Your task to perform on an android device: Search for corsair k70 on ebay.com, select the first entry, add it to the cart, then select checkout. Image 0: 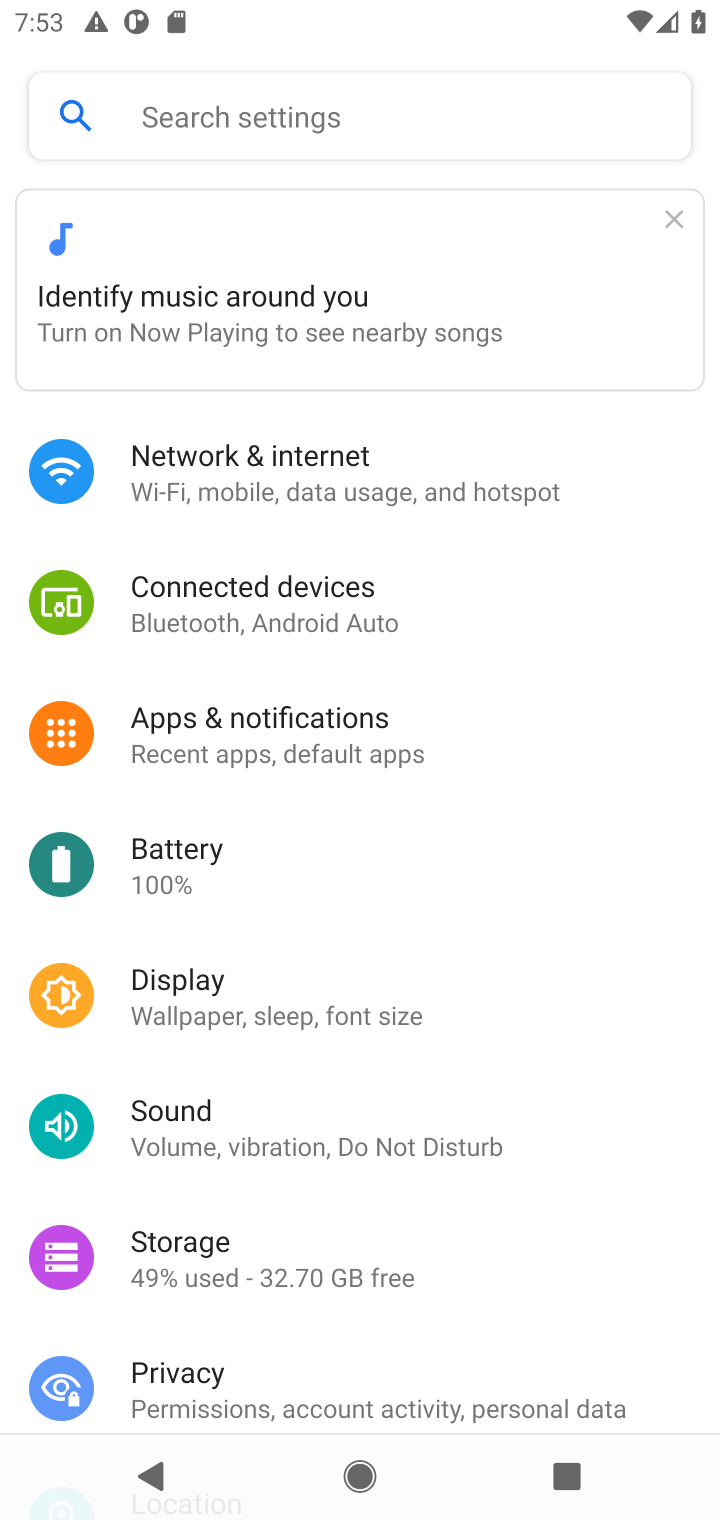
Step 0: press home button
Your task to perform on an android device: Search for corsair k70 on ebay.com, select the first entry, add it to the cart, then select checkout. Image 1: 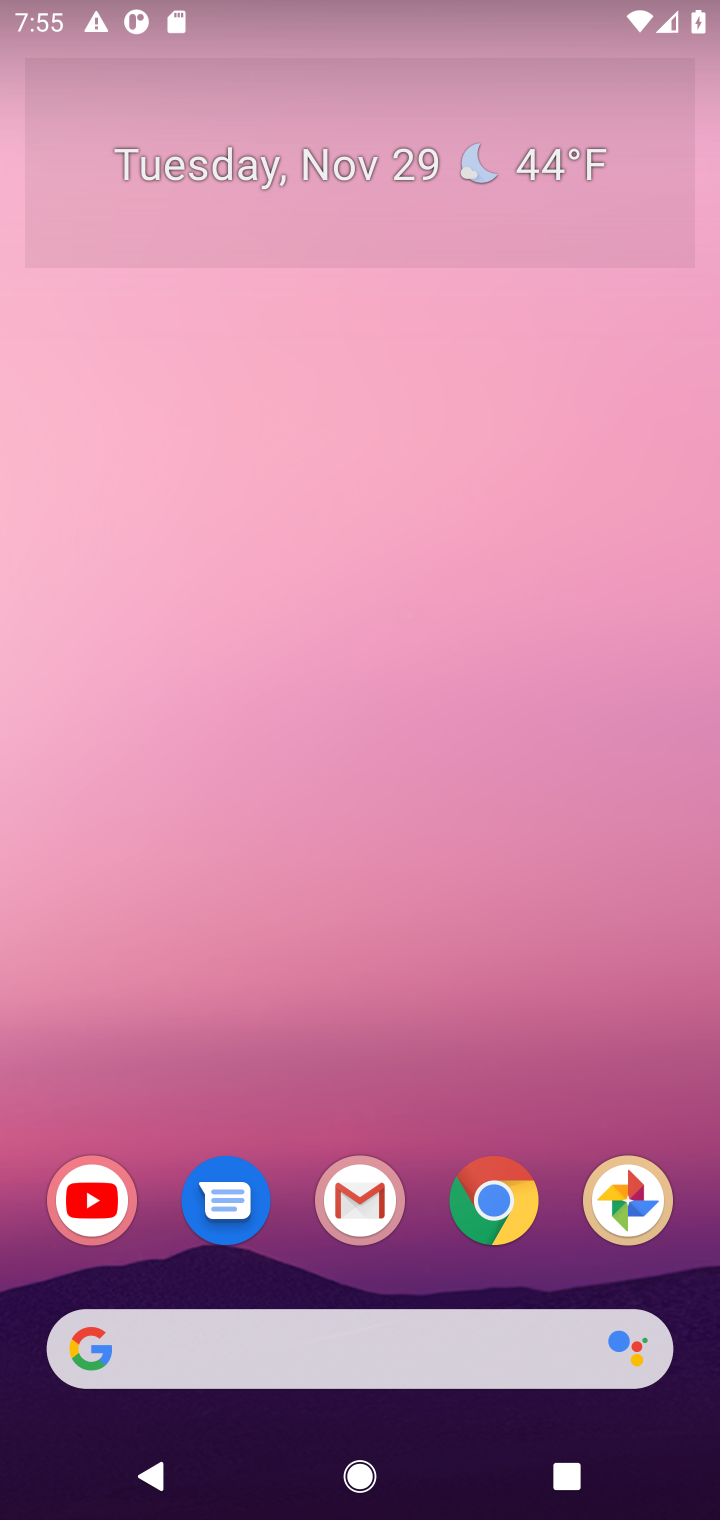
Step 1: click (489, 1215)
Your task to perform on an android device: Search for corsair k70 on ebay.com, select the first entry, add it to the cart, then select checkout. Image 2: 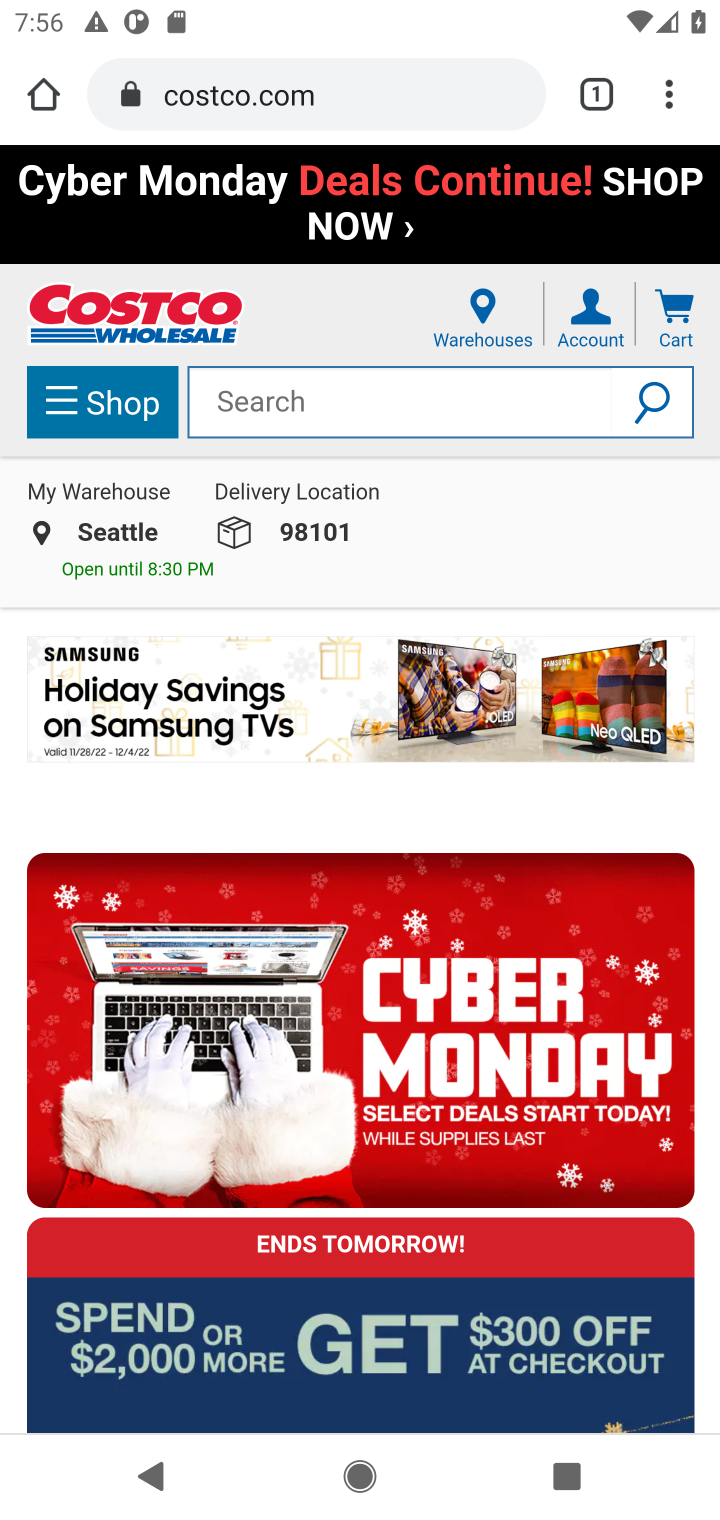
Step 2: click (458, 73)
Your task to perform on an android device: Search for corsair k70 on ebay.com, select the first entry, add it to the cart, then select checkout. Image 3: 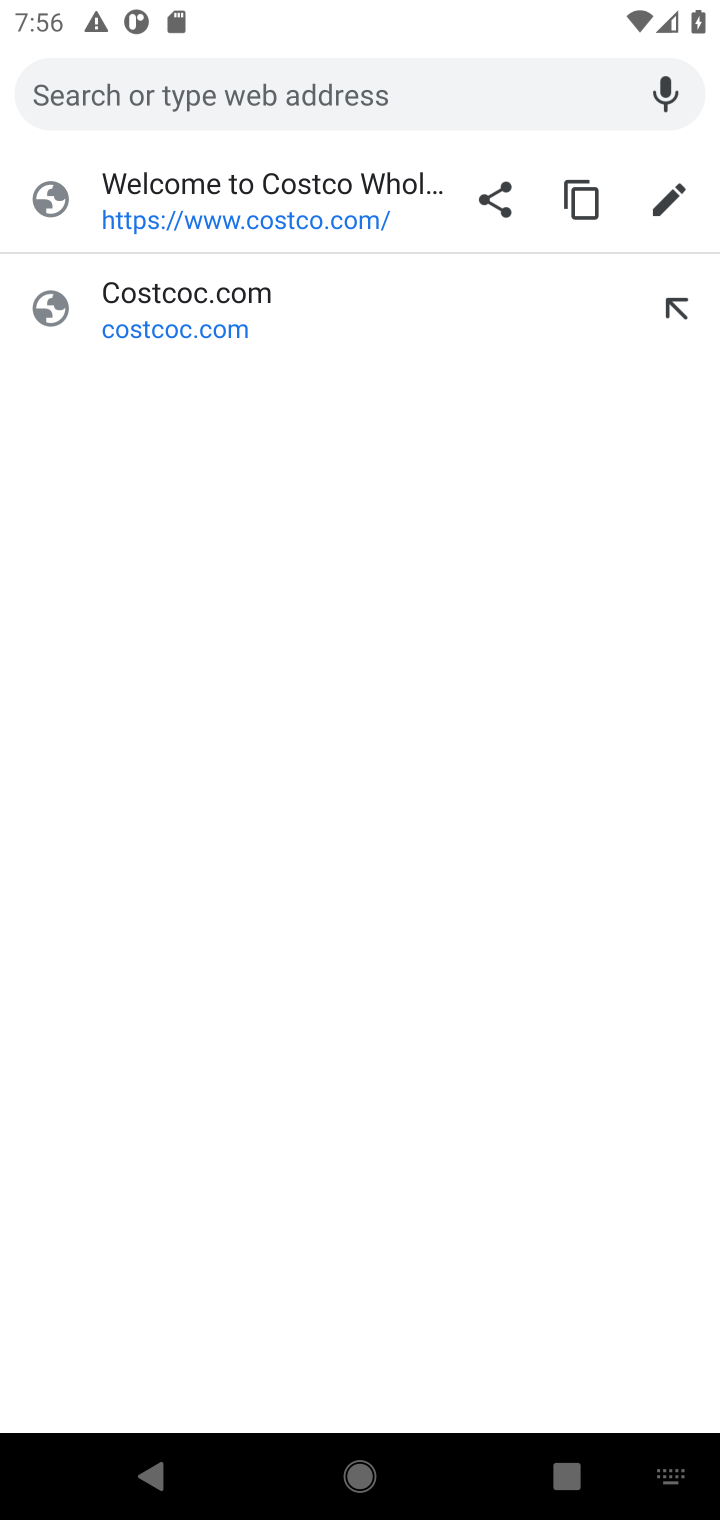
Step 3: type "e"
Your task to perform on an android device: Search for corsair k70 on ebay.com, select the first entry, add it to the cart, then select checkout. Image 4: 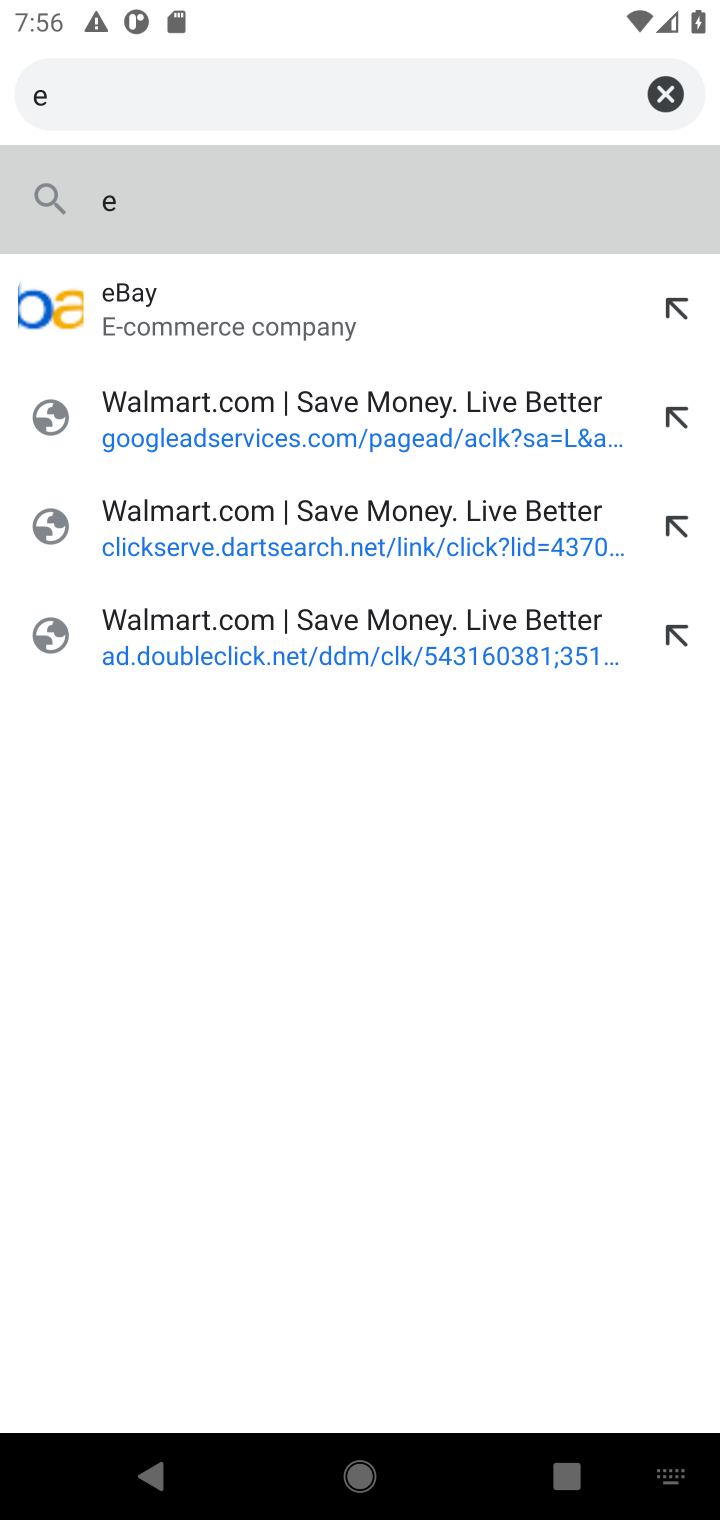
Step 4: click (167, 313)
Your task to perform on an android device: Search for corsair k70 on ebay.com, select the first entry, add it to the cart, then select checkout. Image 5: 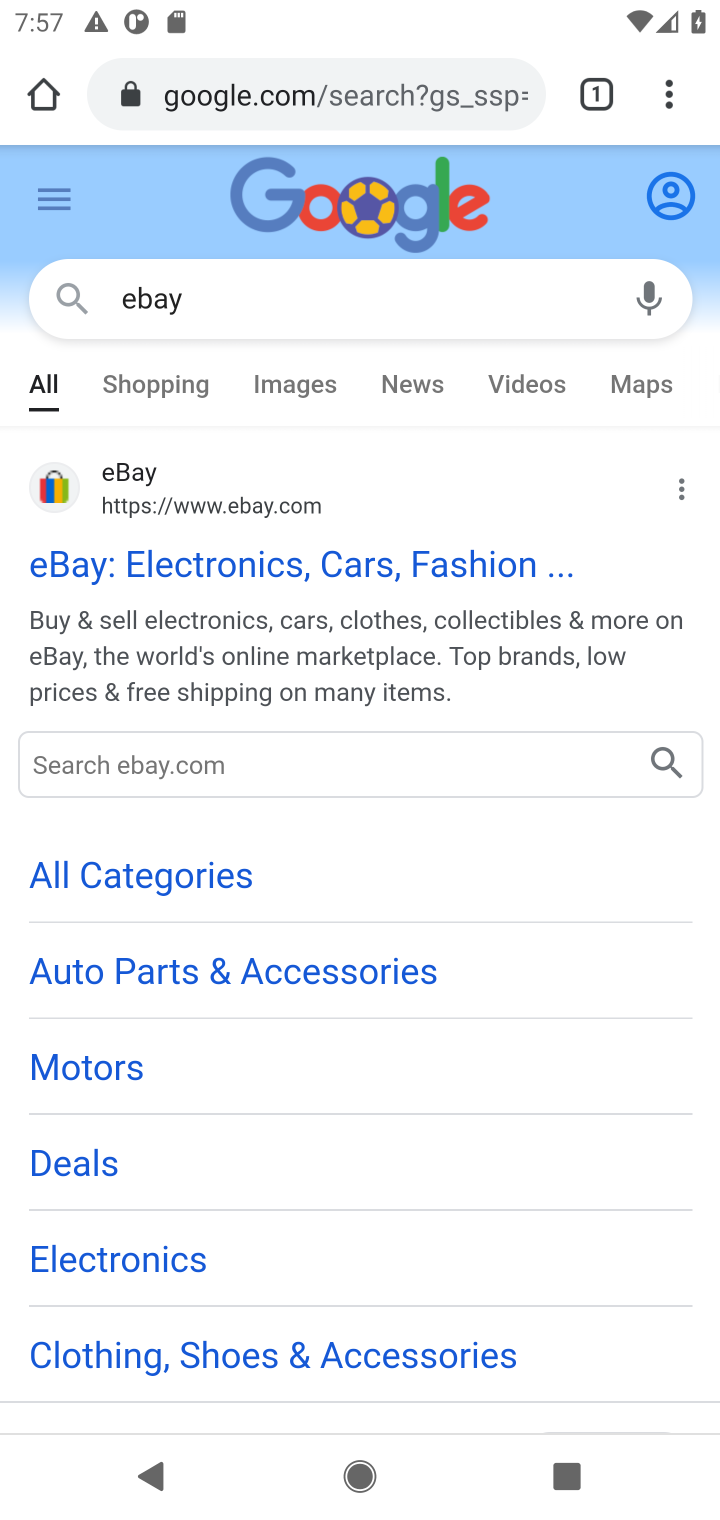
Step 5: click (408, 589)
Your task to perform on an android device: Search for corsair k70 on ebay.com, select the first entry, add it to the cart, then select checkout. Image 6: 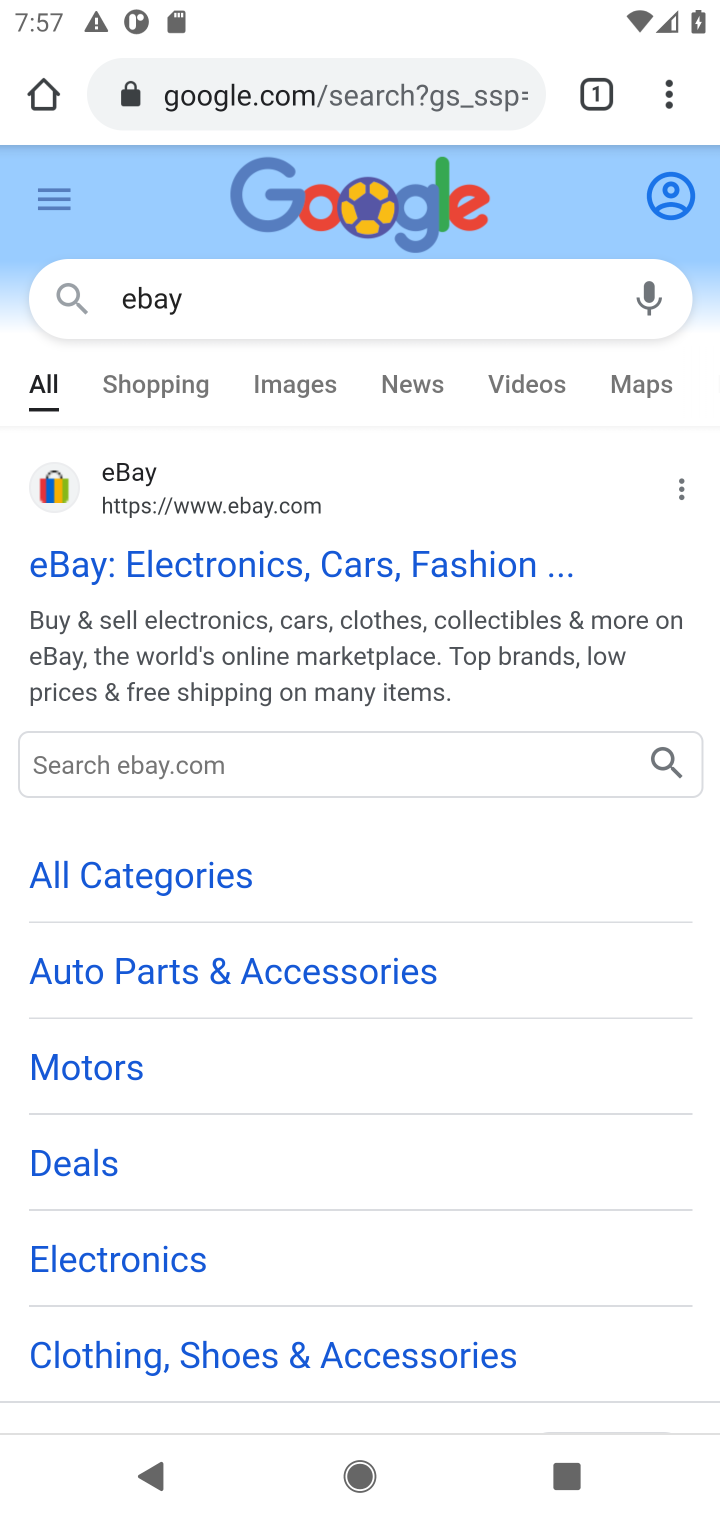
Step 6: click (389, 583)
Your task to perform on an android device: Search for corsair k70 on ebay.com, select the first entry, add it to the cart, then select checkout. Image 7: 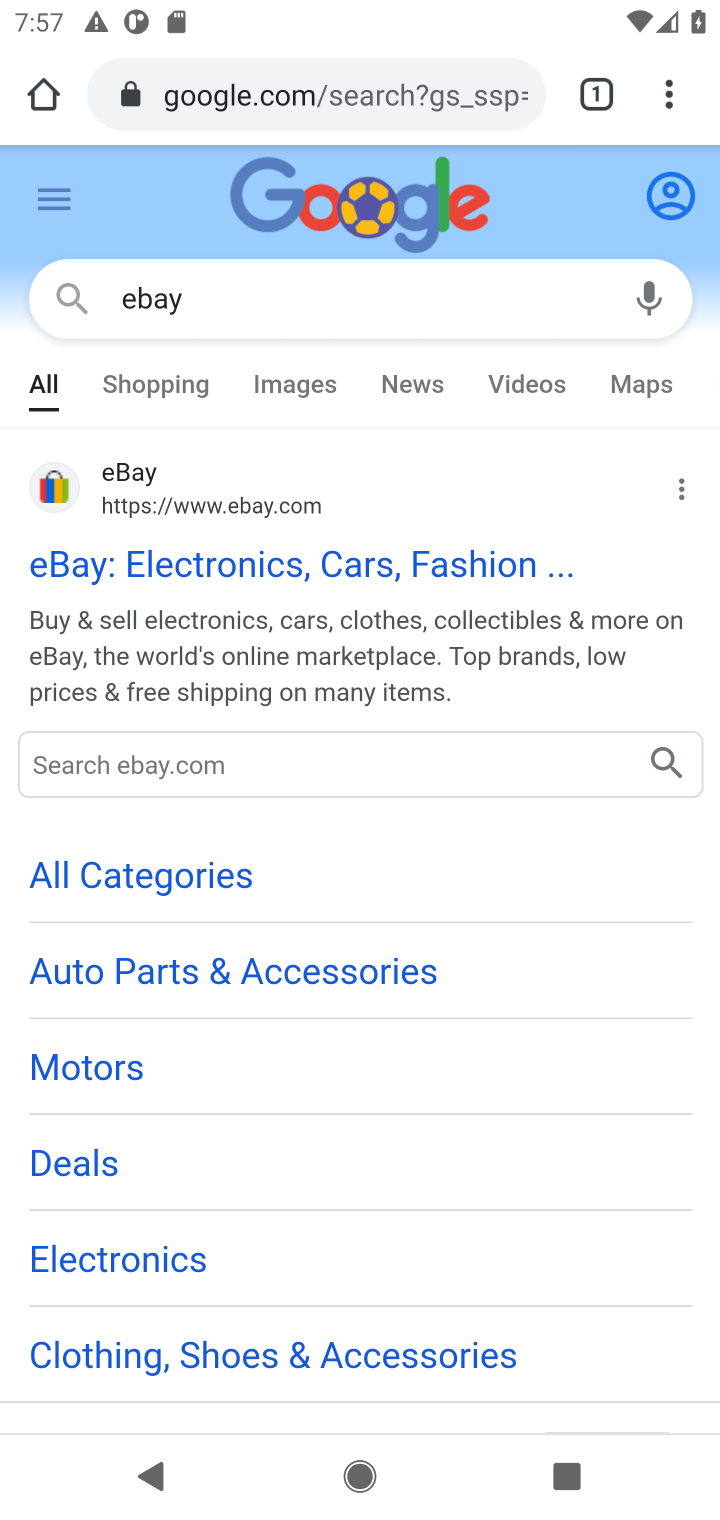
Step 7: click (274, 555)
Your task to perform on an android device: Search for corsair k70 on ebay.com, select the first entry, add it to the cart, then select checkout. Image 8: 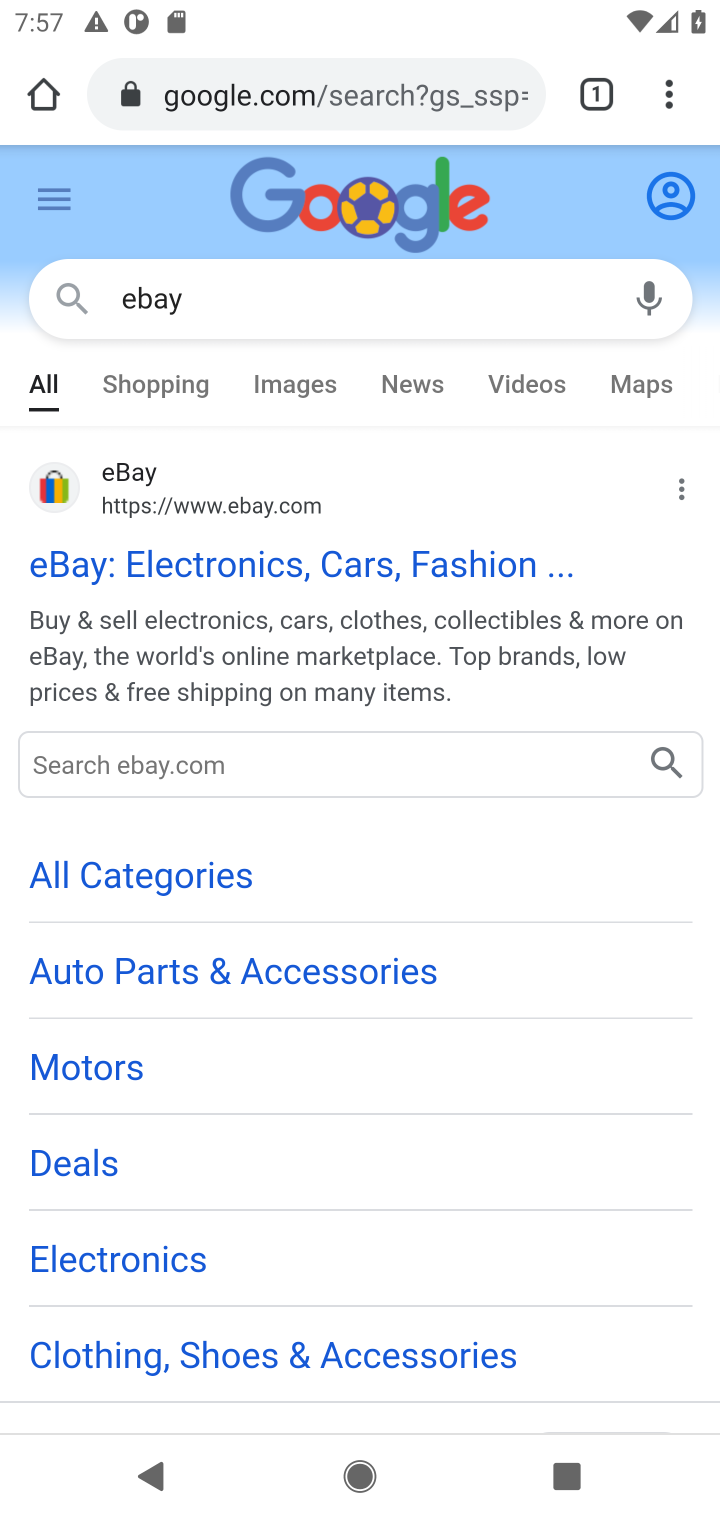
Step 8: click (208, 590)
Your task to perform on an android device: Search for corsair k70 on ebay.com, select the first entry, add it to the cart, then select checkout. Image 9: 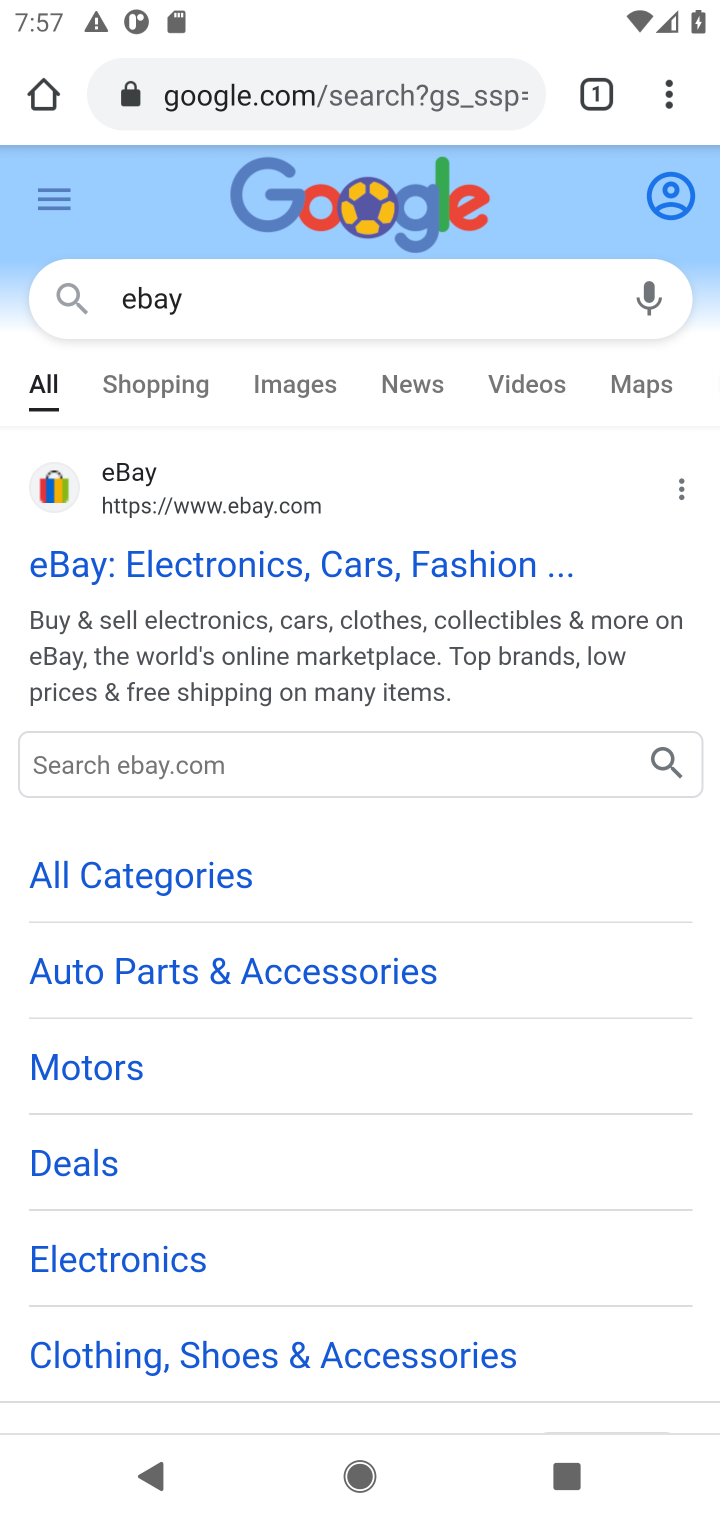
Step 9: click (63, 557)
Your task to perform on an android device: Search for corsair k70 on ebay.com, select the first entry, add it to the cart, then select checkout. Image 10: 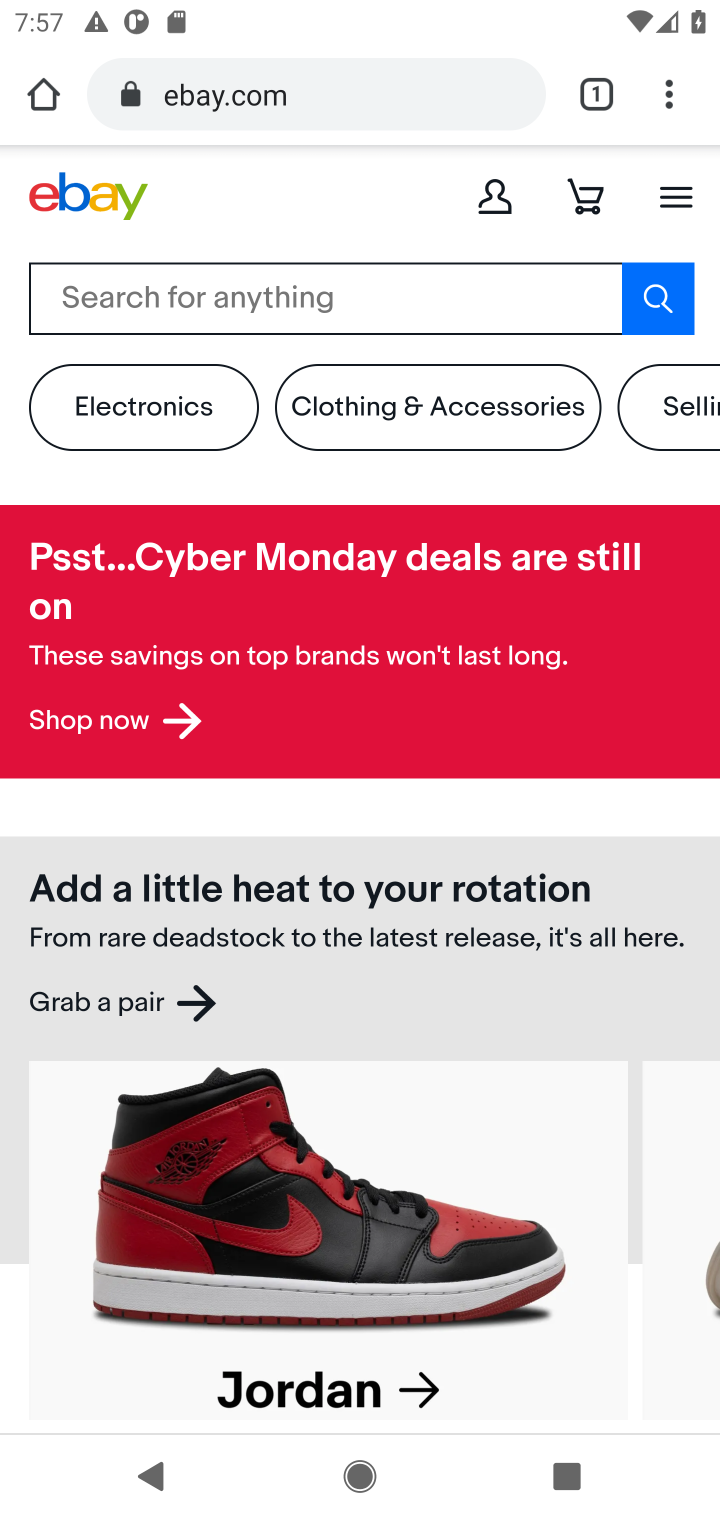
Step 10: click (243, 303)
Your task to perform on an android device: Search for corsair k70 on ebay.com, select the first entry, add it to the cart, then select checkout. Image 11: 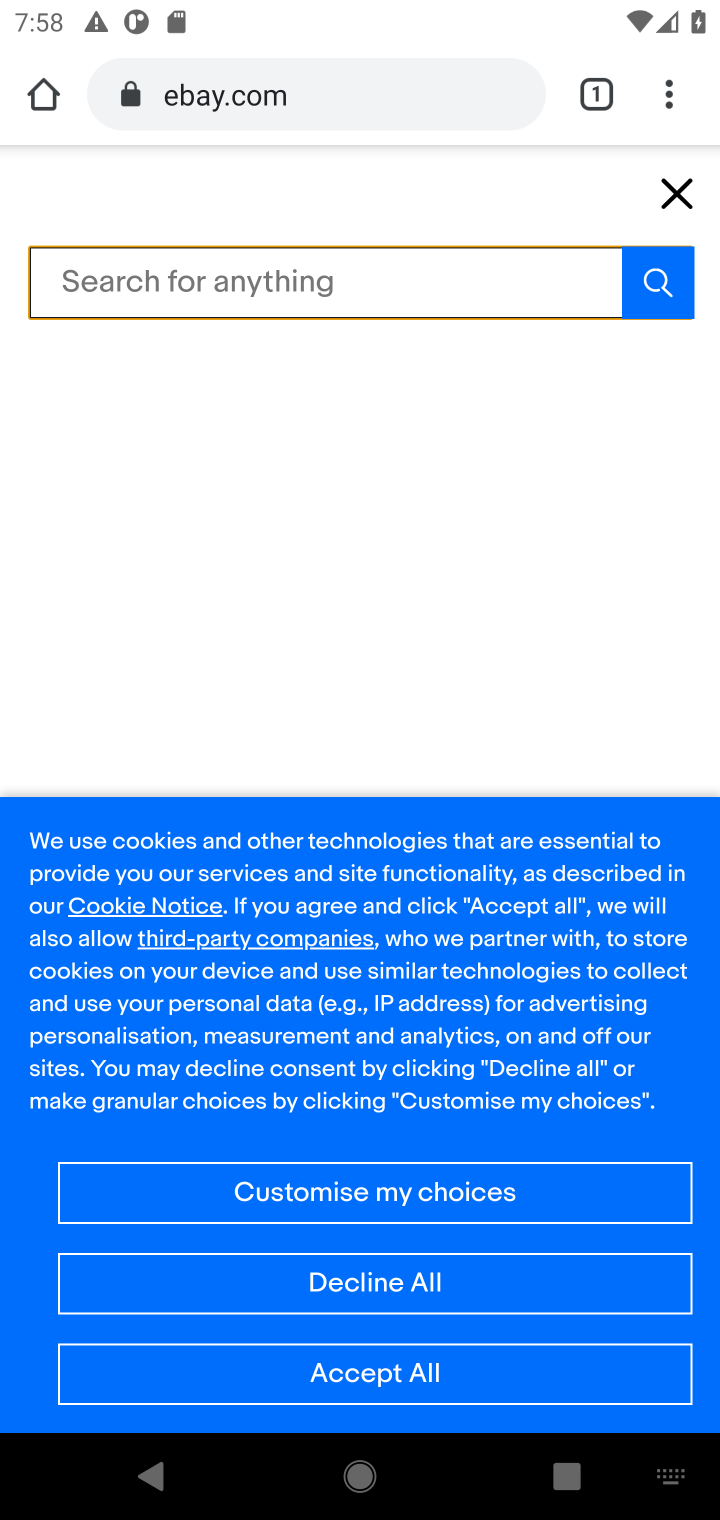
Step 11: type "cosrair k70"
Your task to perform on an android device: Search for corsair k70 on ebay.com, select the first entry, add it to the cart, then select checkout. Image 12: 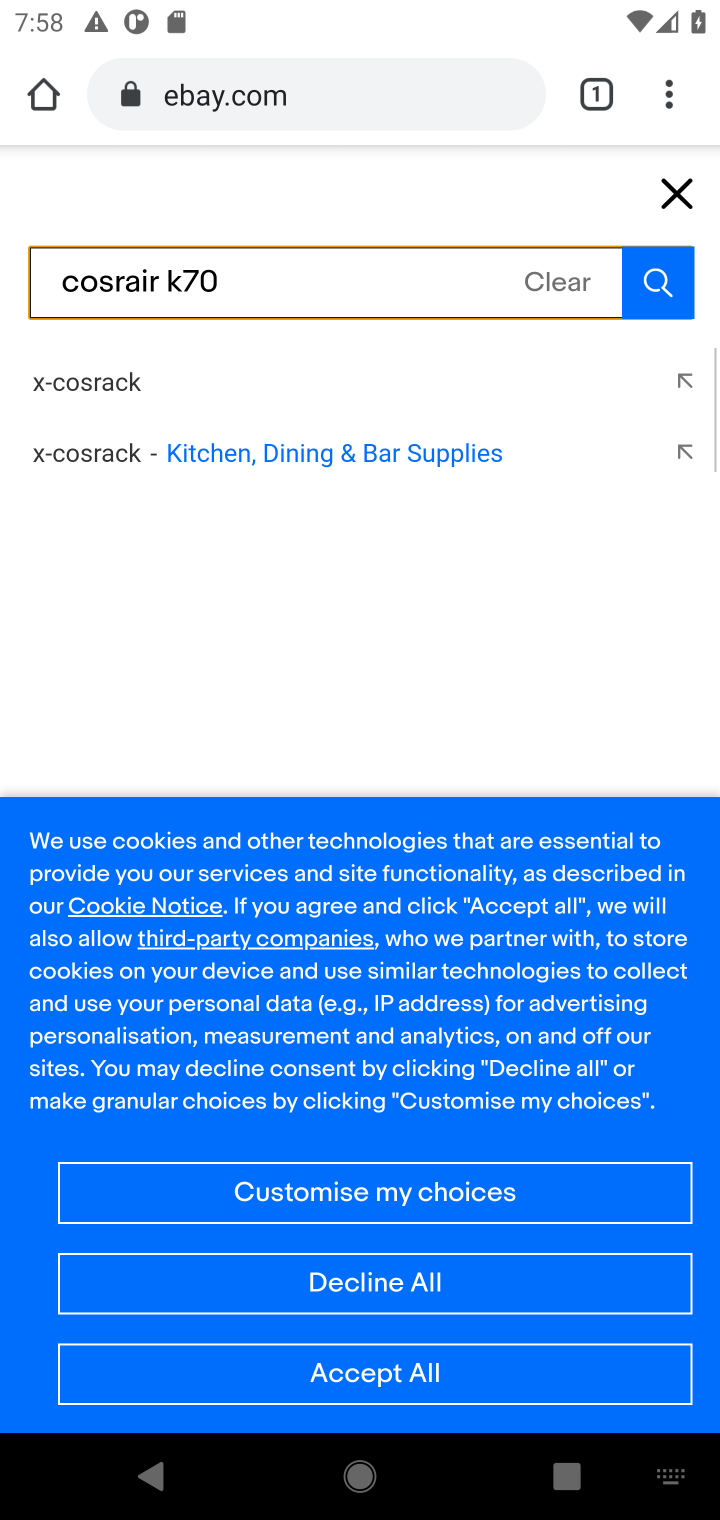
Step 12: click (645, 281)
Your task to perform on an android device: Search for corsair k70 on ebay.com, select the first entry, add it to the cart, then select checkout. Image 13: 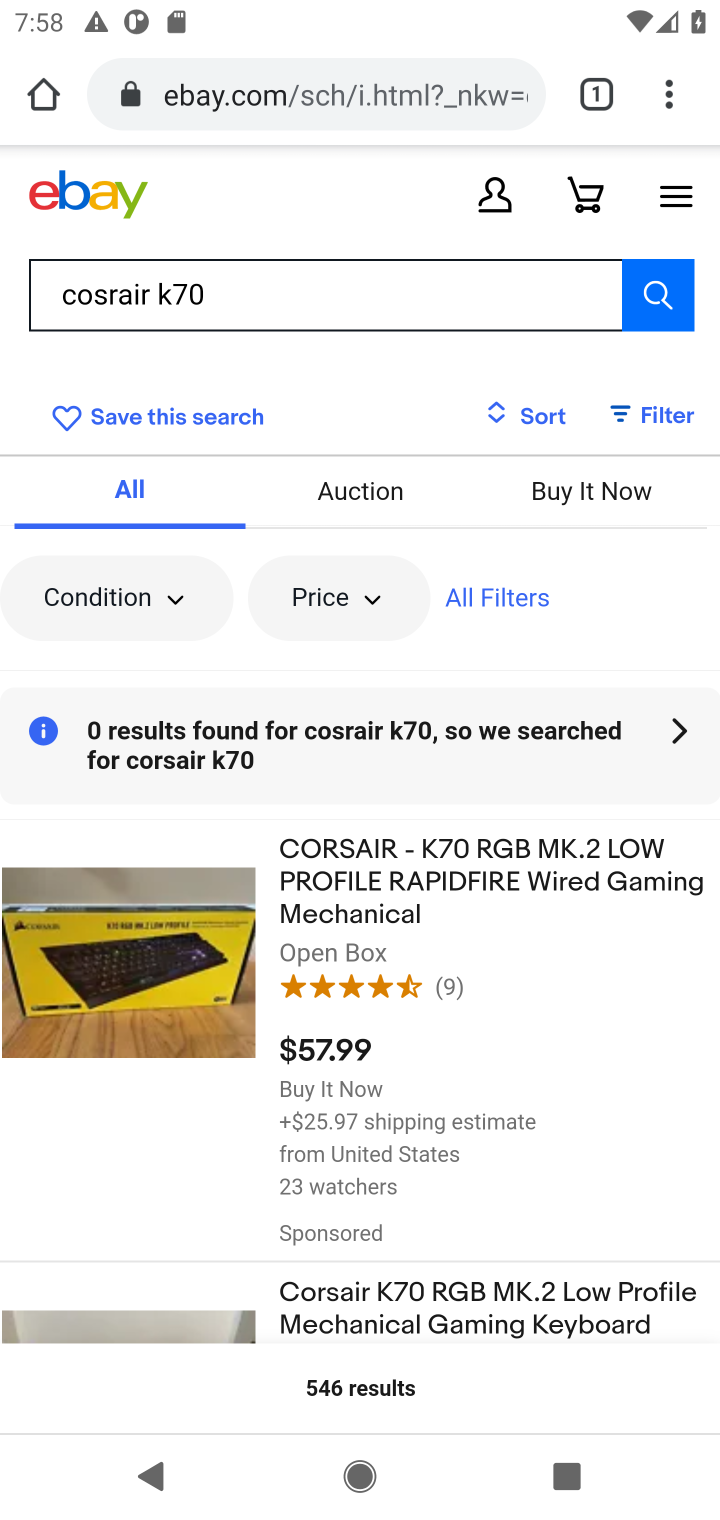
Step 13: click (401, 847)
Your task to perform on an android device: Search for corsair k70 on ebay.com, select the first entry, add it to the cart, then select checkout. Image 14: 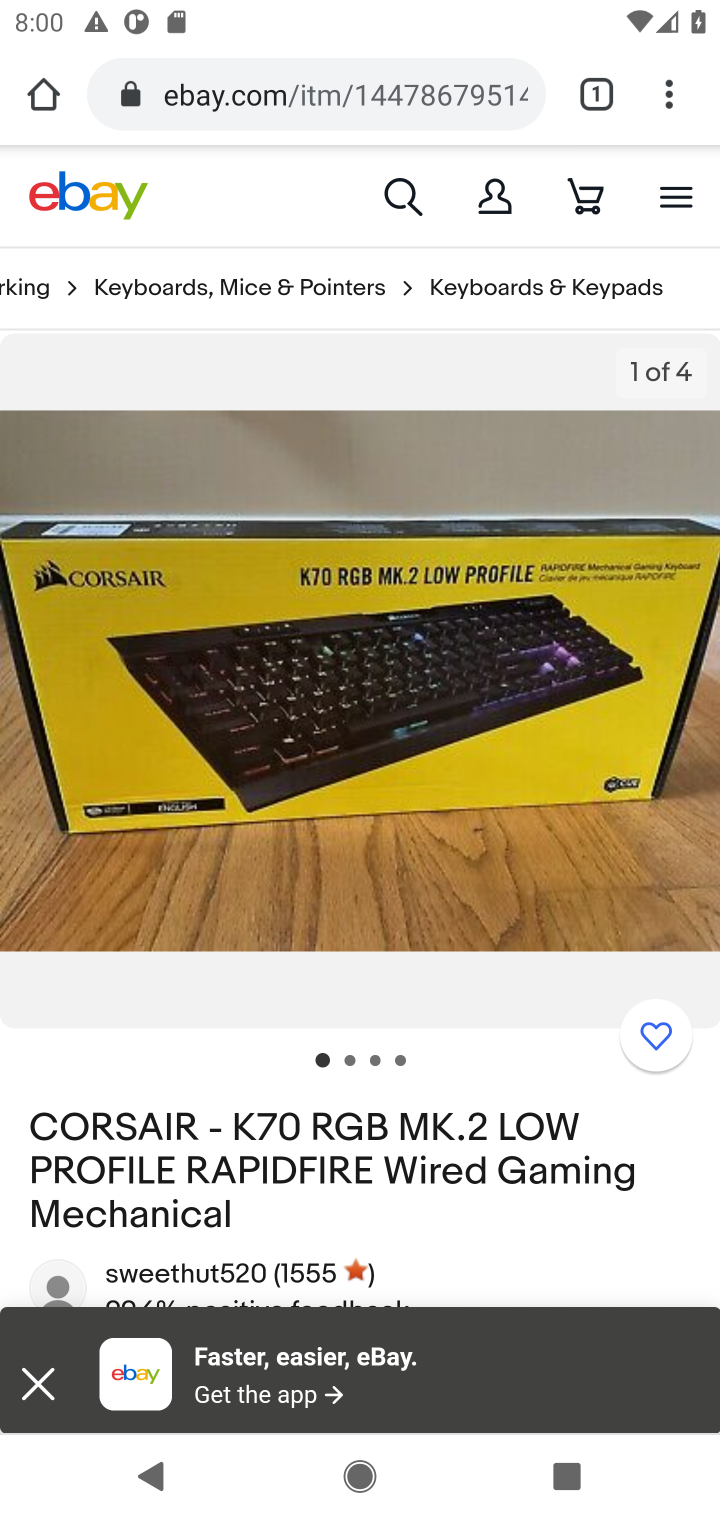
Step 14: click (19, 1417)
Your task to perform on an android device: Search for corsair k70 on ebay.com, select the first entry, add it to the cart, then select checkout. Image 15: 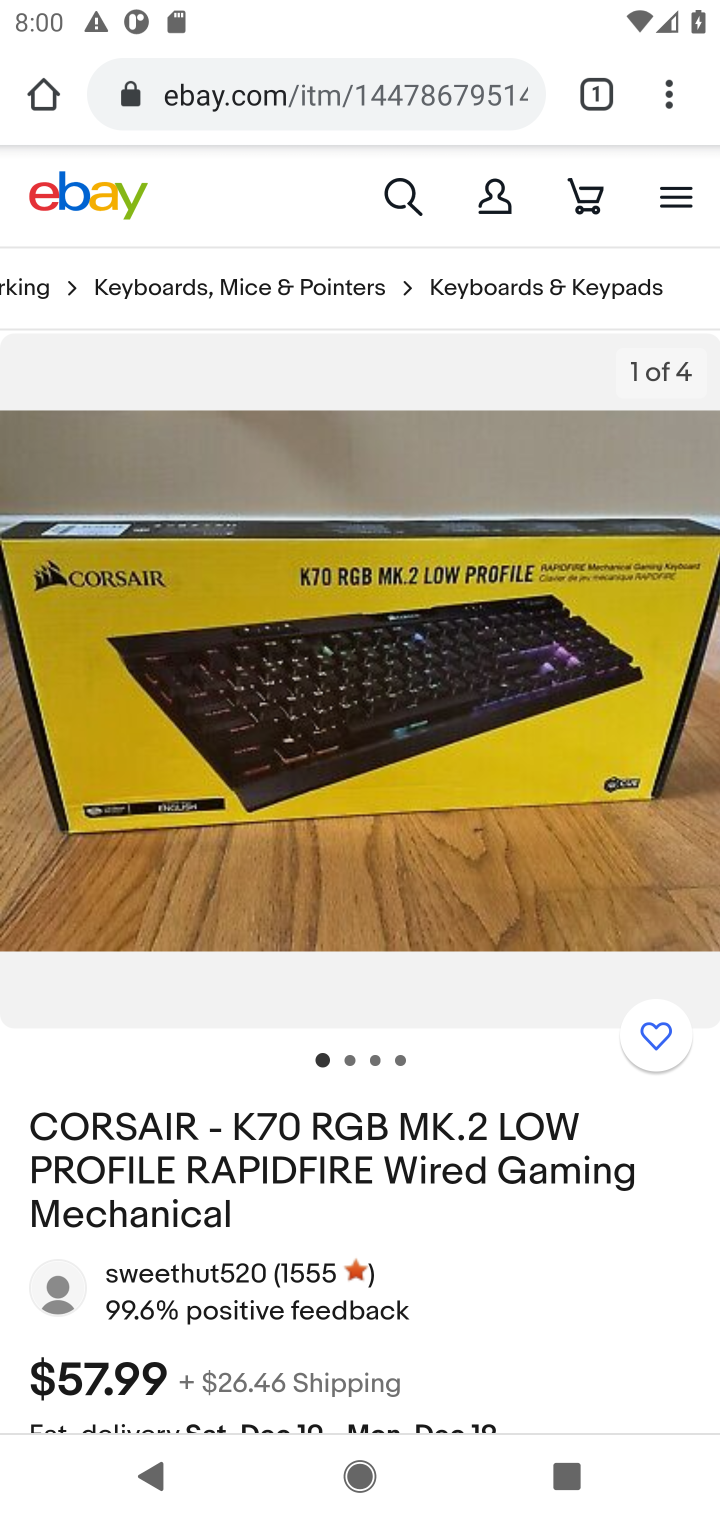
Step 15: drag from (294, 1383) to (283, 274)
Your task to perform on an android device: Search for corsair k70 on ebay.com, select the first entry, add it to the cart, then select checkout. Image 16: 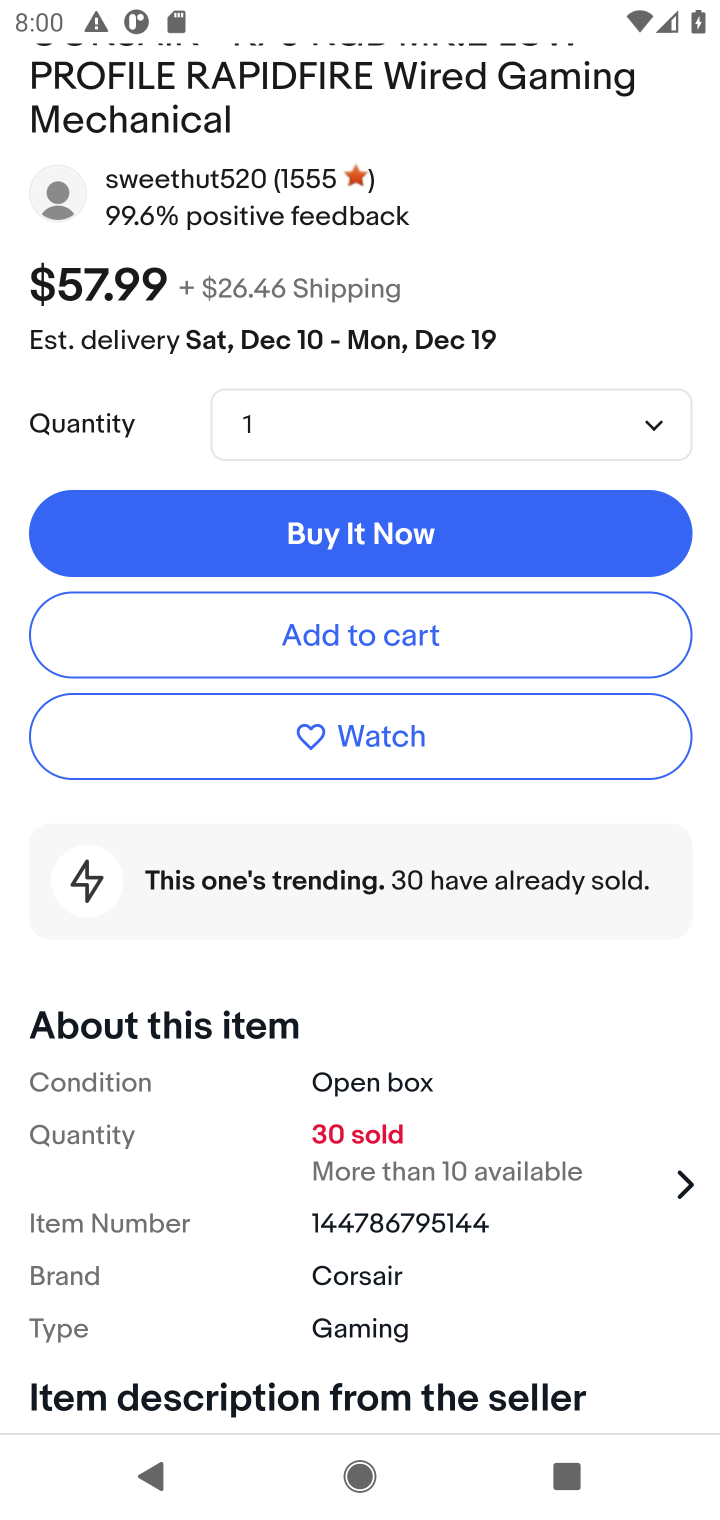
Step 16: click (395, 618)
Your task to perform on an android device: Search for corsair k70 on ebay.com, select the first entry, add it to the cart, then select checkout. Image 17: 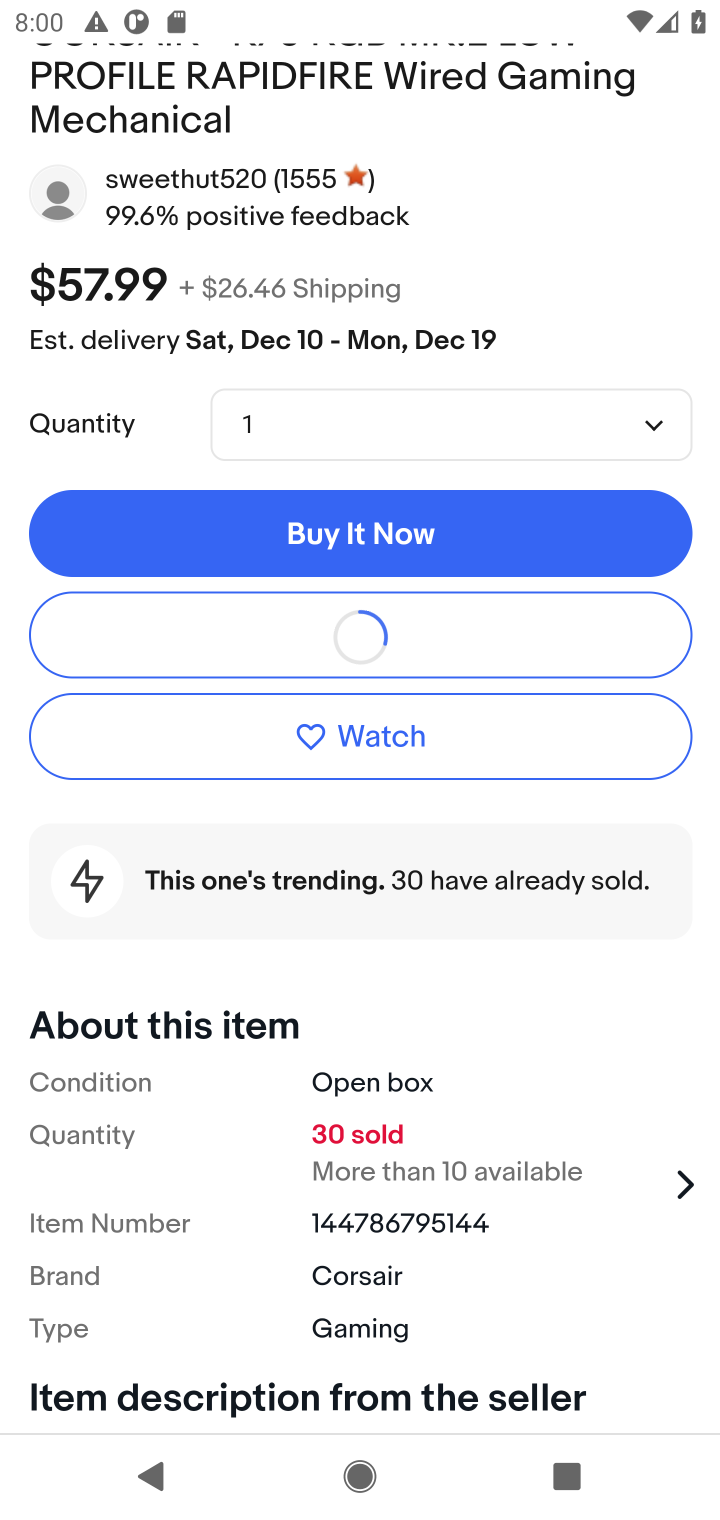
Step 17: task complete